Your task to perform on an android device: Open ESPN.com Image 0: 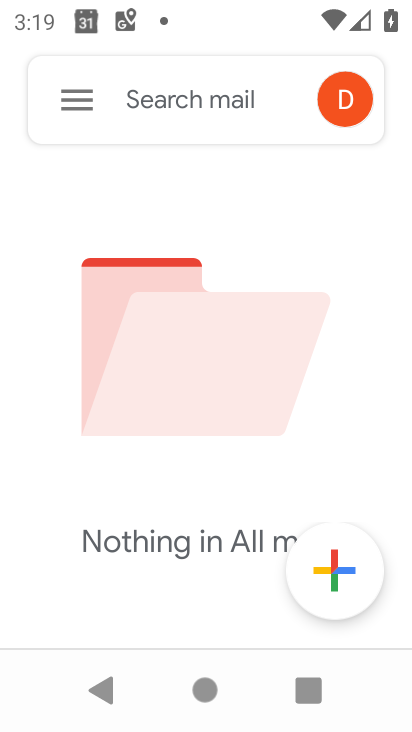
Step 0: press home button
Your task to perform on an android device: Open ESPN.com Image 1: 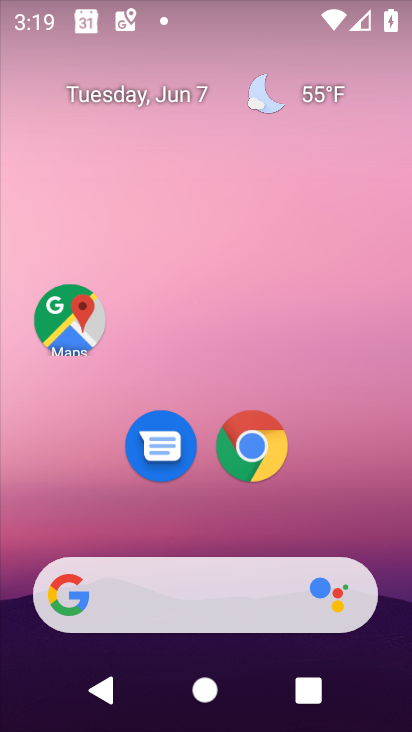
Step 1: click (257, 454)
Your task to perform on an android device: Open ESPN.com Image 2: 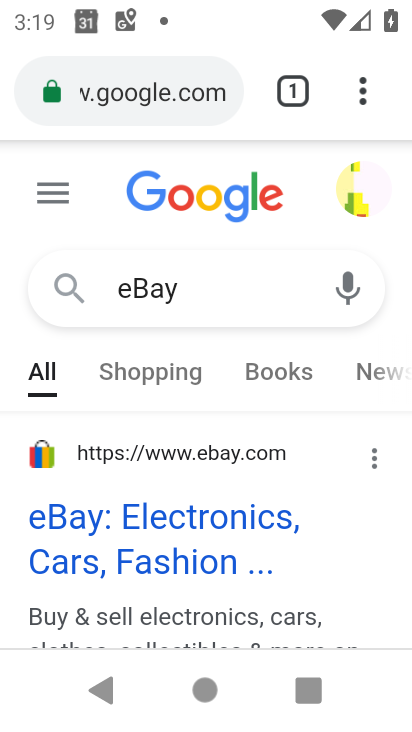
Step 2: click (165, 101)
Your task to perform on an android device: Open ESPN.com Image 3: 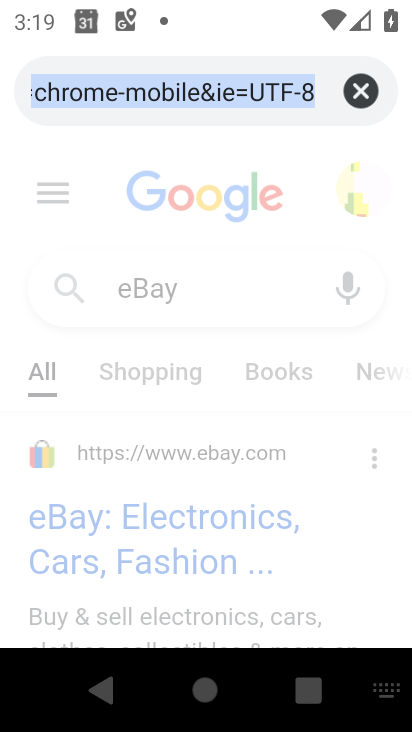
Step 3: type "espn.com"
Your task to perform on an android device: Open ESPN.com Image 4: 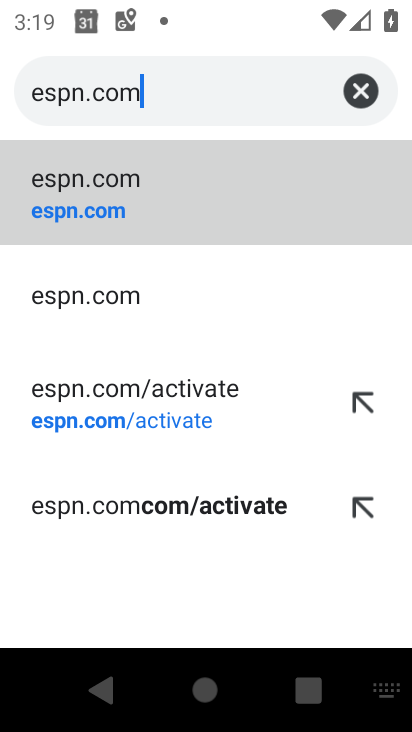
Step 4: click (345, 200)
Your task to perform on an android device: Open ESPN.com Image 5: 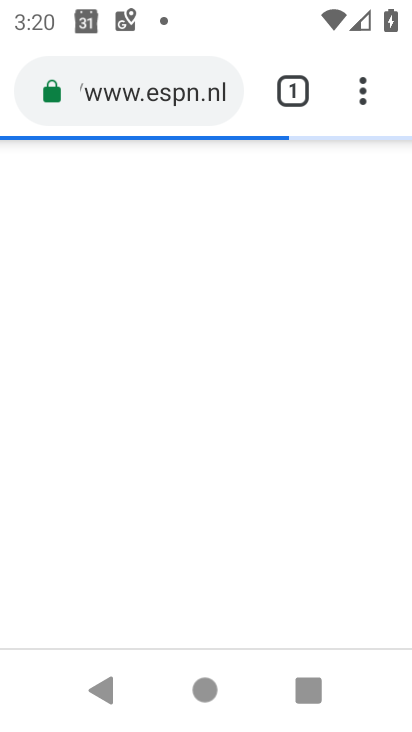
Step 5: task complete